Your task to perform on an android device: Open Chrome and go to settings Image 0: 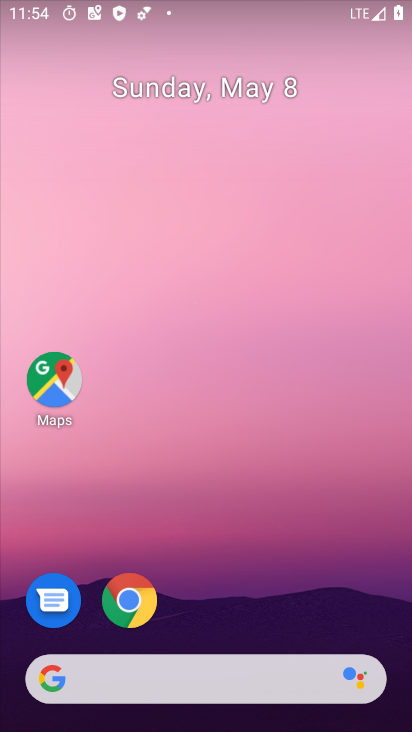
Step 0: drag from (258, 619) to (242, 226)
Your task to perform on an android device: Open Chrome and go to settings Image 1: 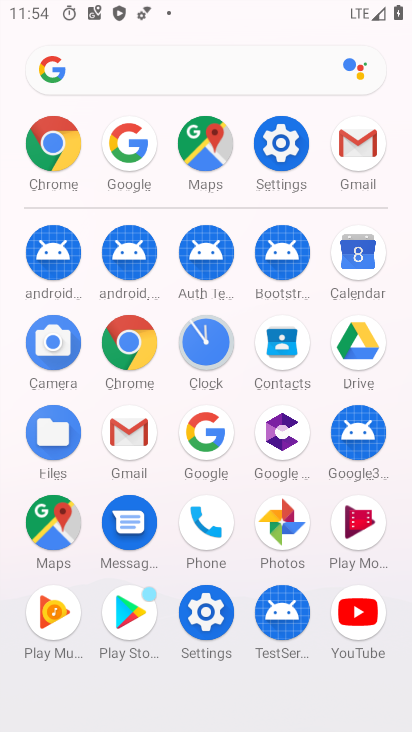
Step 1: click (132, 336)
Your task to perform on an android device: Open Chrome and go to settings Image 2: 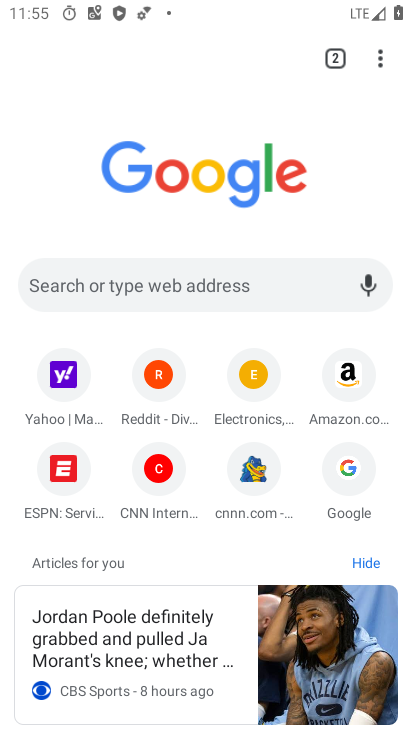
Step 2: click (382, 63)
Your task to perform on an android device: Open Chrome and go to settings Image 3: 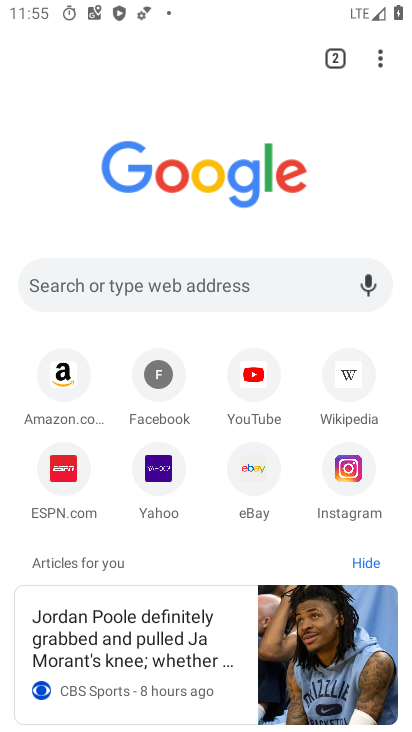
Step 3: click (383, 64)
Your task to perform on an android device: Open Chrome and go to settings Image 4: 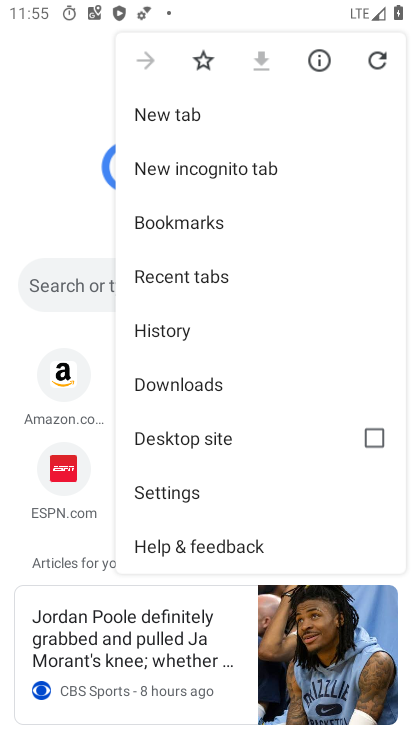
Step 4: click (181, 492)
Your task to perform on an android device: Open Chrome and go to settings Image 5: 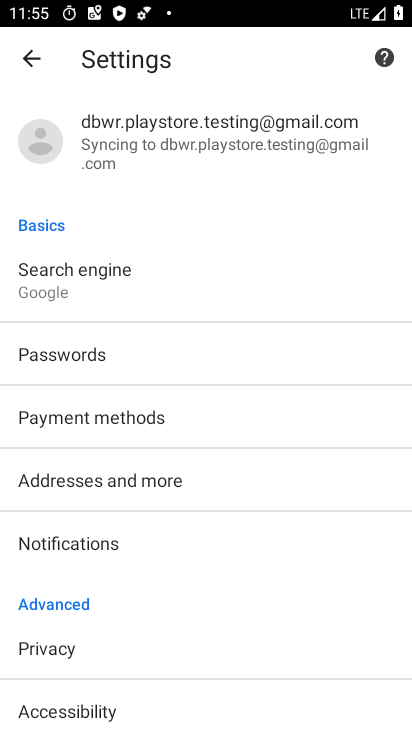
Step 5: task complete